Your task to perform on an android device: turn vacation reply on in the gmail app Image 0: 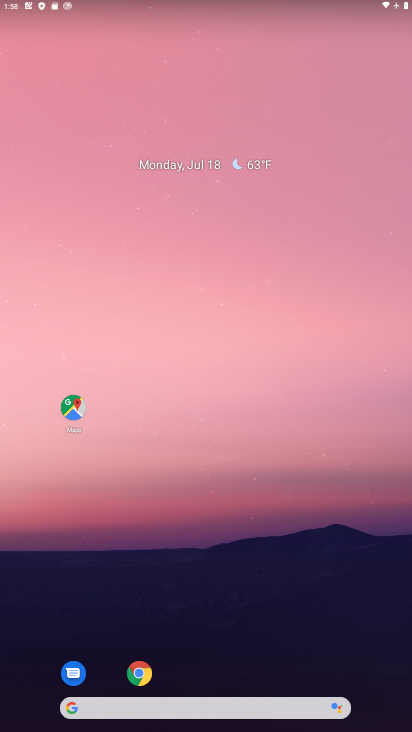
Step 0: drag from (243, 664) to (228, 444)
Your task to perform on an android device: turn vacation reply on in the gmail app Image 1: 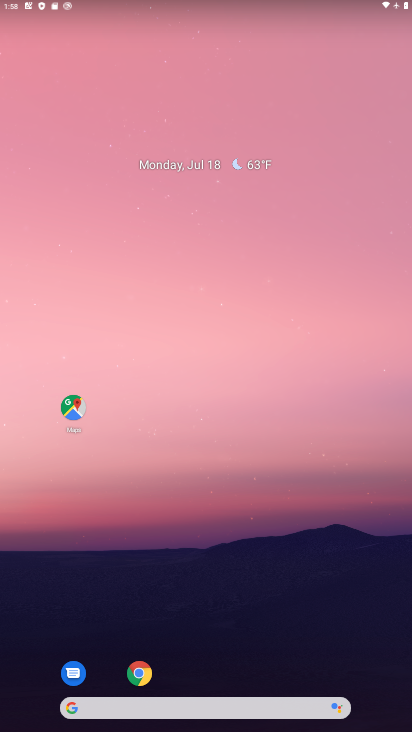
Step 1: drag from (196, 687) to (242, 181)
Your task to perform on an android device: turn vacation reply on in the gmail app Image 2: 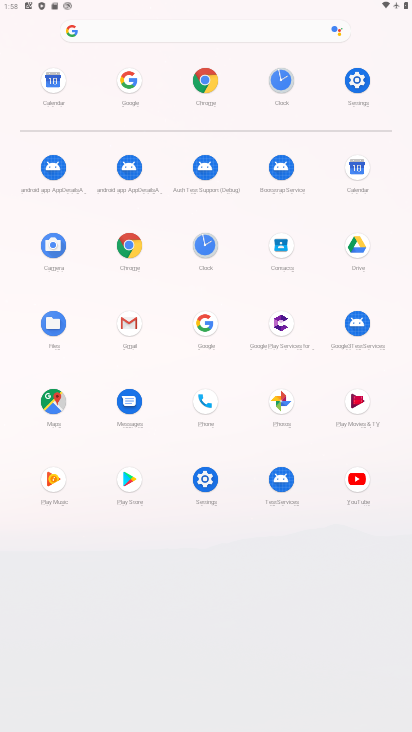
Step 2: click (132, 321)
Your task to perform on an android device: turn vacation reply on in the gmail app Image 3: 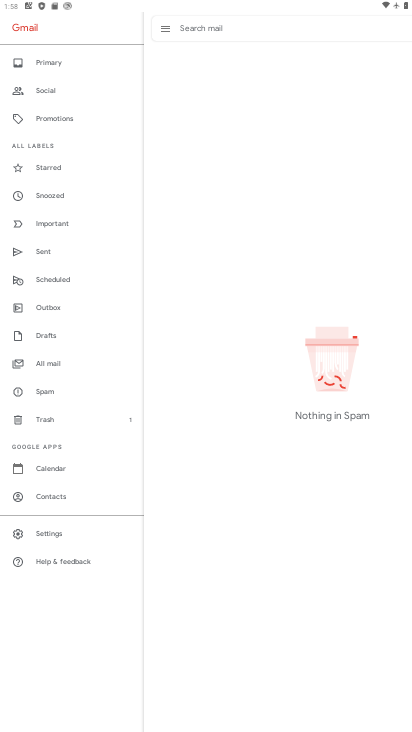
Step 3: click (54, 527)
Your task to perform on an android device: turn vacation reply on in the gmail app Image 4: 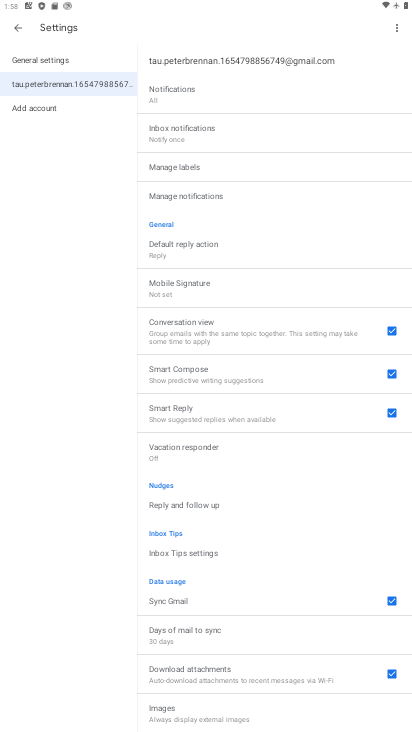
Step 4: click (373, 433)
Your task to perform on an android device: turn vacation reply on in the gmail app Image 5: 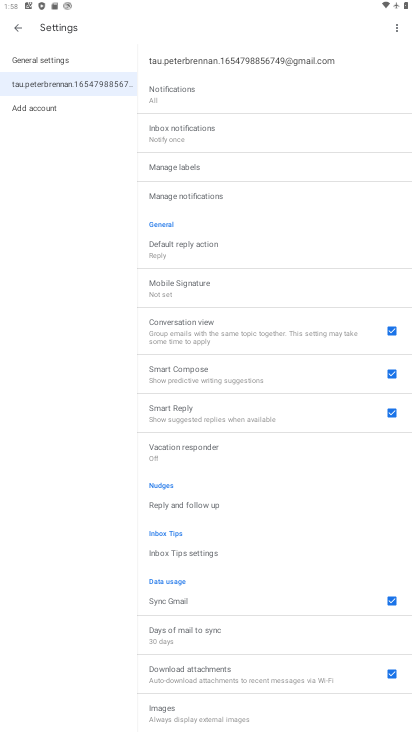
Step 5: click (237, 434)
Your task to perform on an android device: turn vacation reply on in the gmail app Image 6: 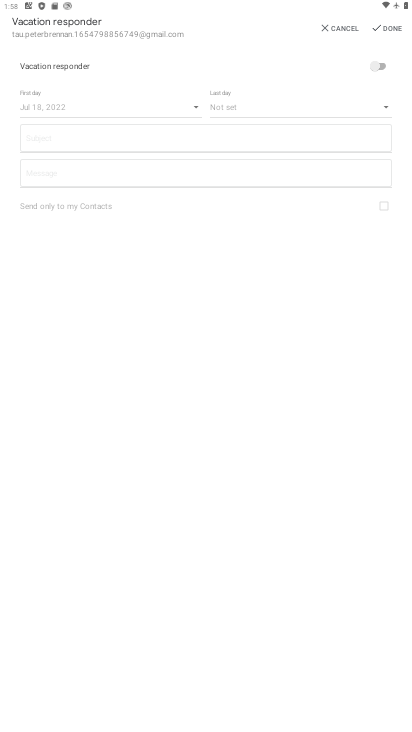
Step 6: click (379, 58)
Your task to perform on an android device: turn vacation reply on in the gmail app Image 7: 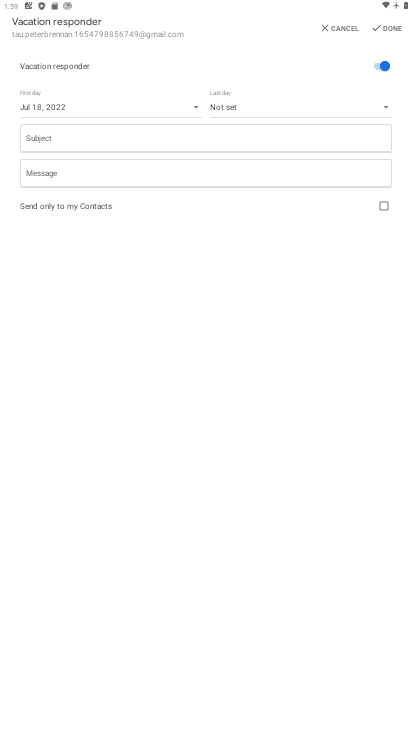
Step 7: task complete